Your task to perform on an android device: Open the phone app and click the voicemail tab. Image 0: 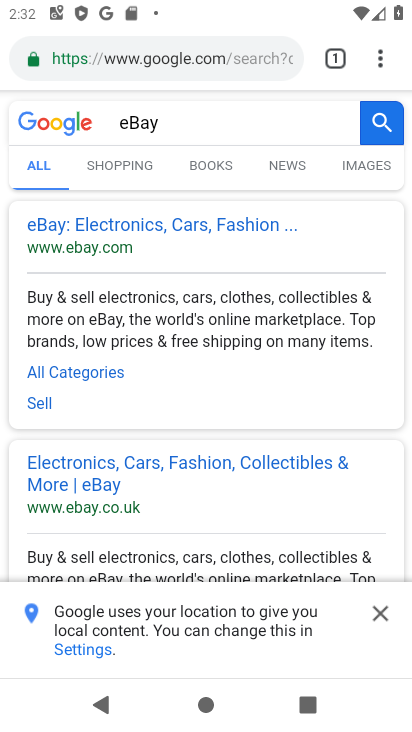
Step 0: press home button
Your task to perform on an android device: Open the phone app and click the voicemail tab. Image 1: 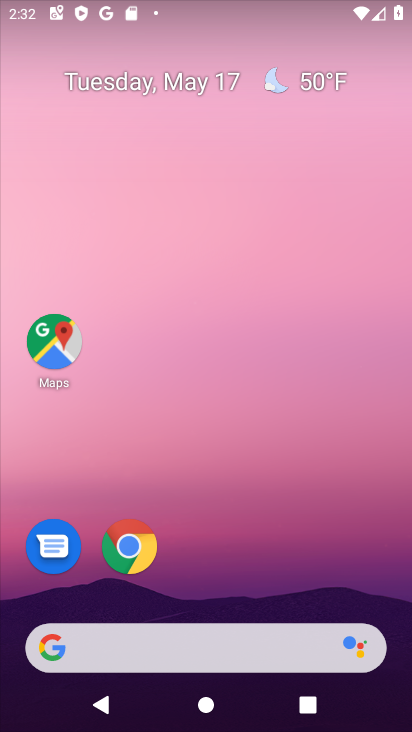
Step 1: drag from (256, 556) to (304, 13)
Your task to perform on an android device: Open the phone app and click the voicemail tab. Image 2: 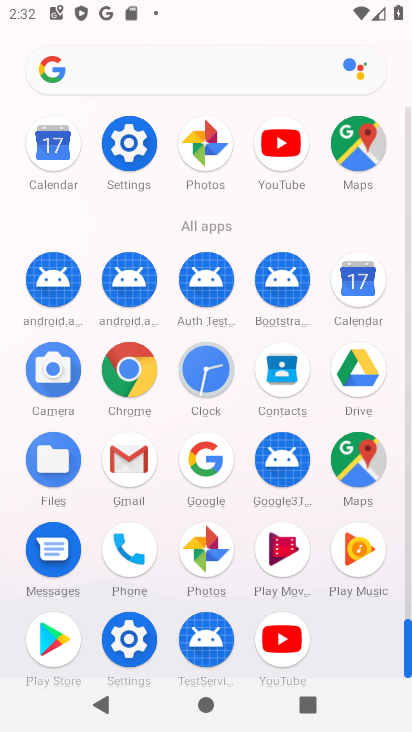
Step 2: click (126, 555)
Your task to perform on an android device: Open the phone app and click the voicemail tab. Image 3: 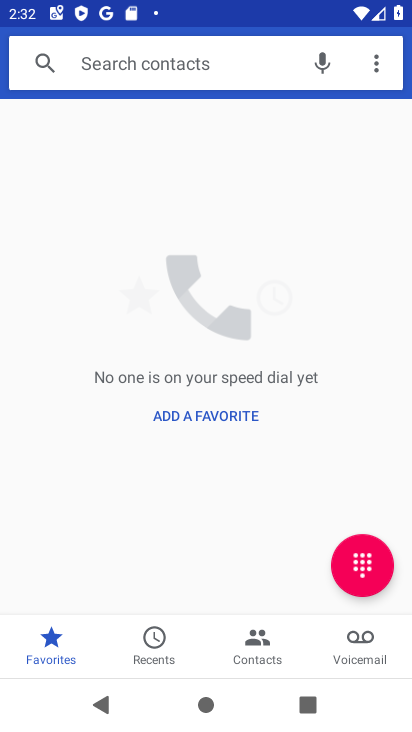
Step 3: click (361, 639)
Your task to perform on an android device: Open the phone app and click the voicemail tab. Image 4: 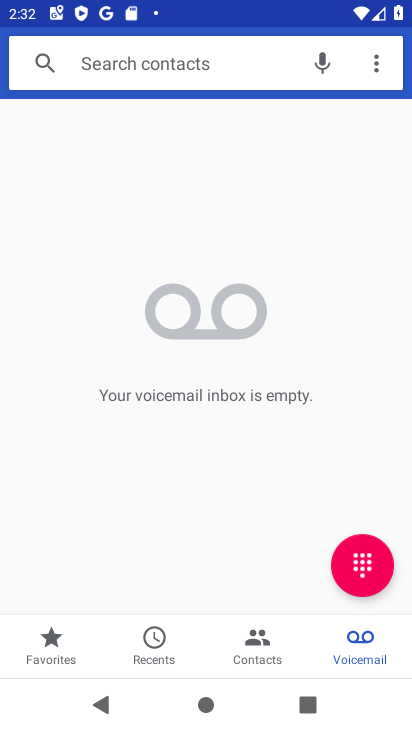
Step 4: task complete